Your task to perform on an android device: Empty the shopping cart on newegg.com. Search for apple airpods on newegg.com, select the first entry, add it to the cart, then select checkout. Image 0: 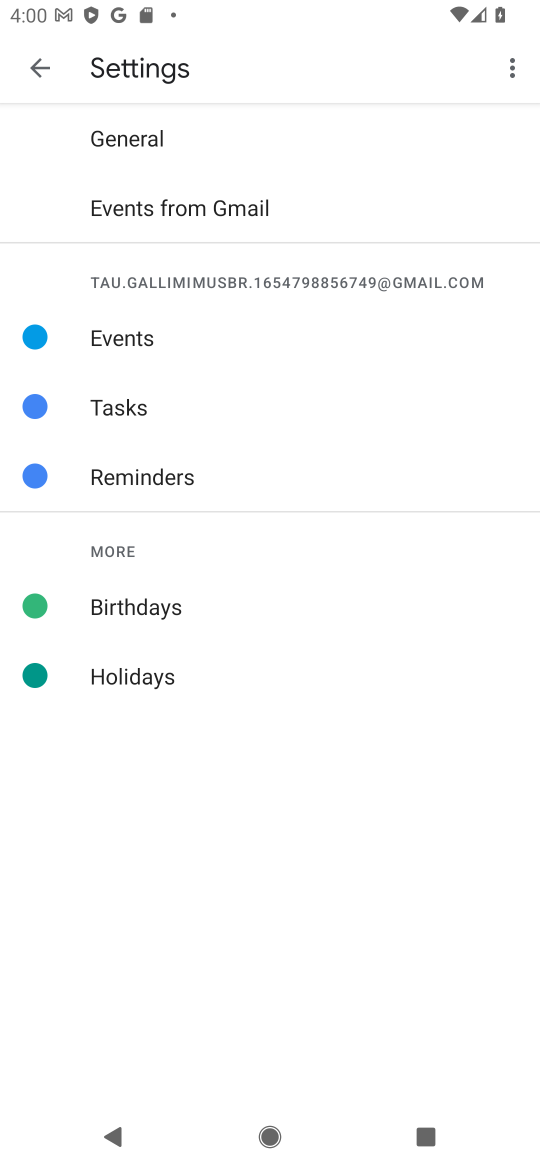
Step 0: press home button
Your task to perform on an android device: Empty the shopping cart on newegg.com. Search for apple airpods on newegg.com, select the first entry, add it to the cart, then select checkout. Image 1: 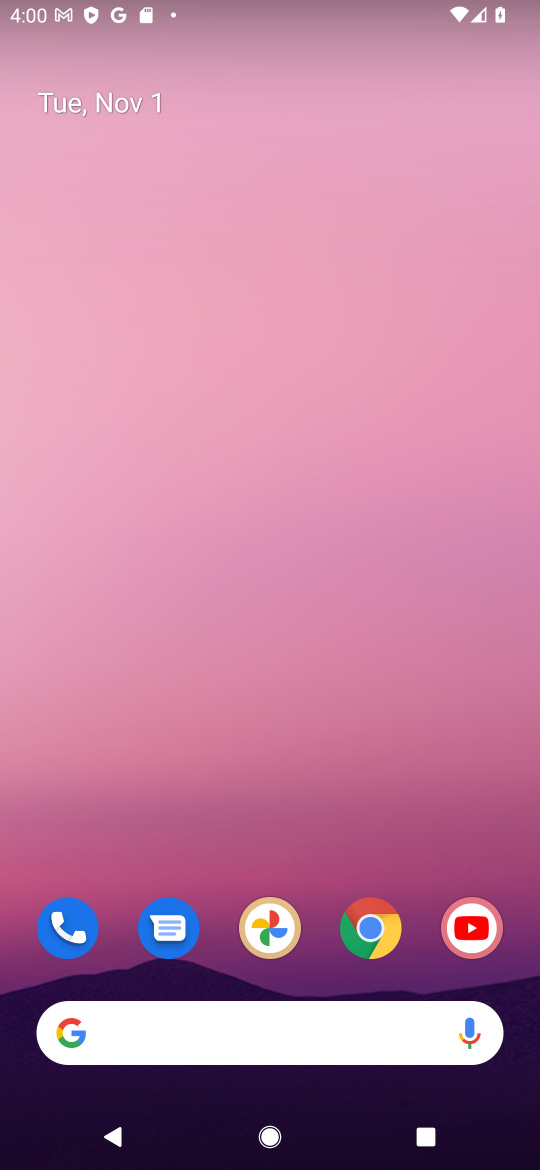
Step 1: click (360, 934)
Your task to perform on an android device: Empty the shopping cart on newegg.com. Search for apple airpods on newegg.com, select the first entry, add it to the cart, then select checkout. Image 2: 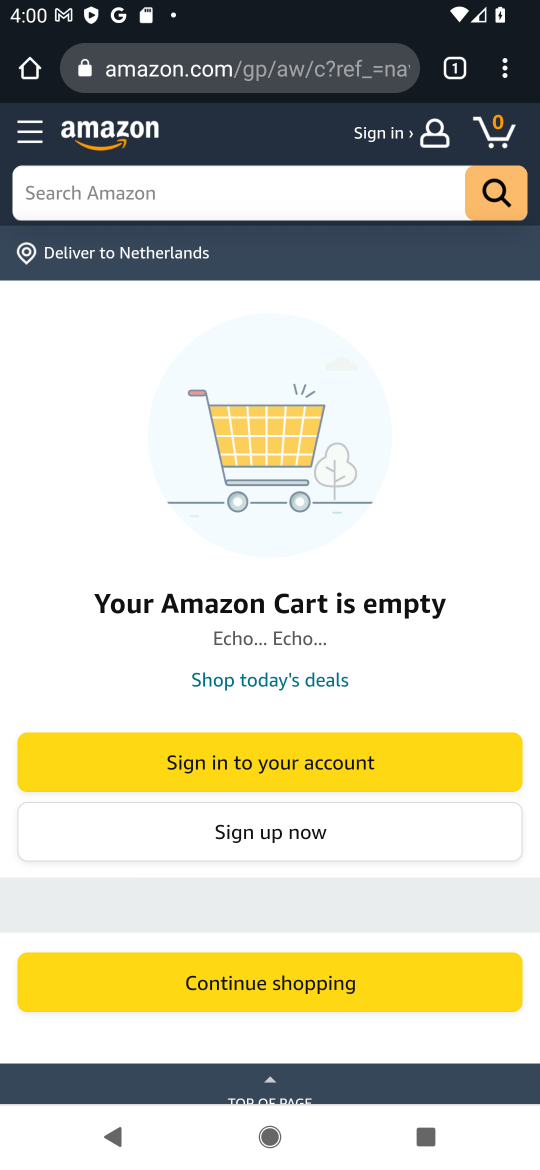
Step 2: click (259, 67)
Your task to perform on an android device: Empty the shopping cart on newegg.com. Search for apple airpods on newegg.com, select the first entry, add it to the cart, then select checkout. Image 3: 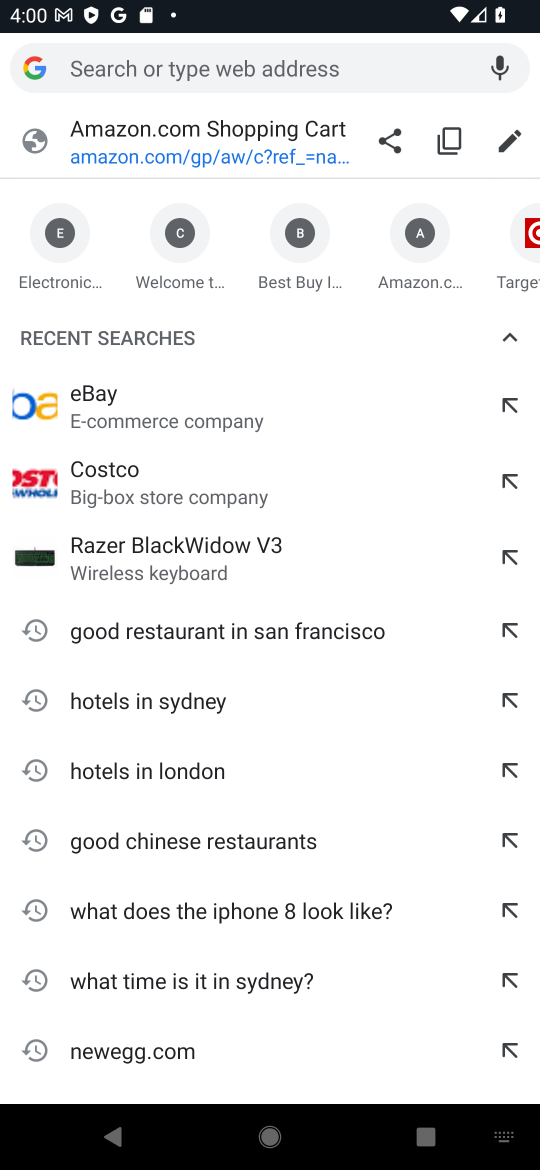
Step 3: type "newegg.com"
Your task to perform on an android device: Empty the shopping cart on newegg.com. Search for apple airpods on newegg.com, select the first entry, add it to the cart, then select checkout. Image 4: 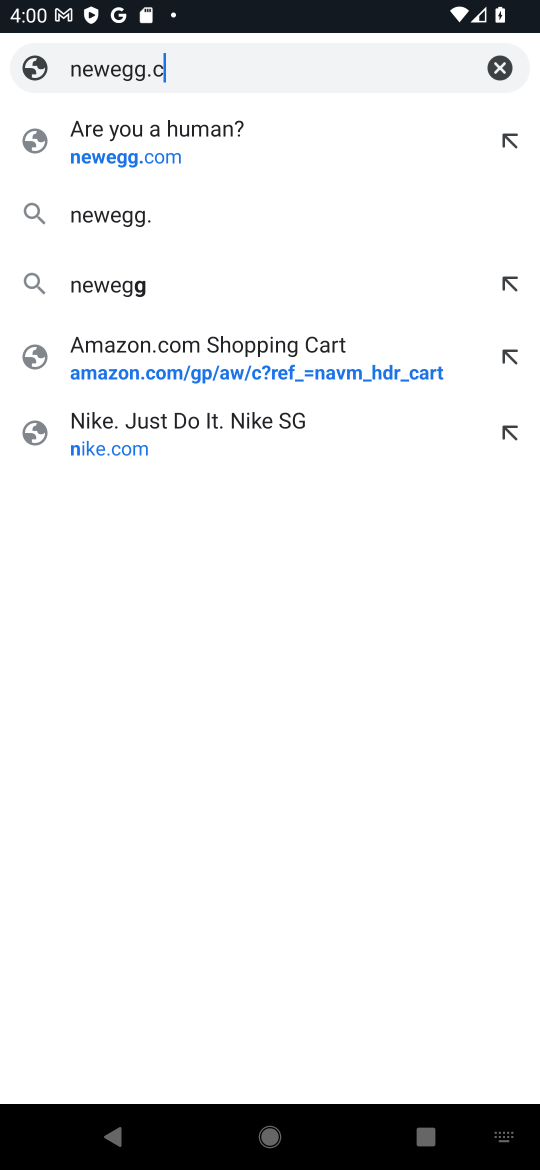
Step 4: type ""
Your task to perform on an android device: Empty the shopping cart on newegg.com. Search for apple airpods on newegg.com, select the first entry, add it to the cart, then select checkout. Image 5: 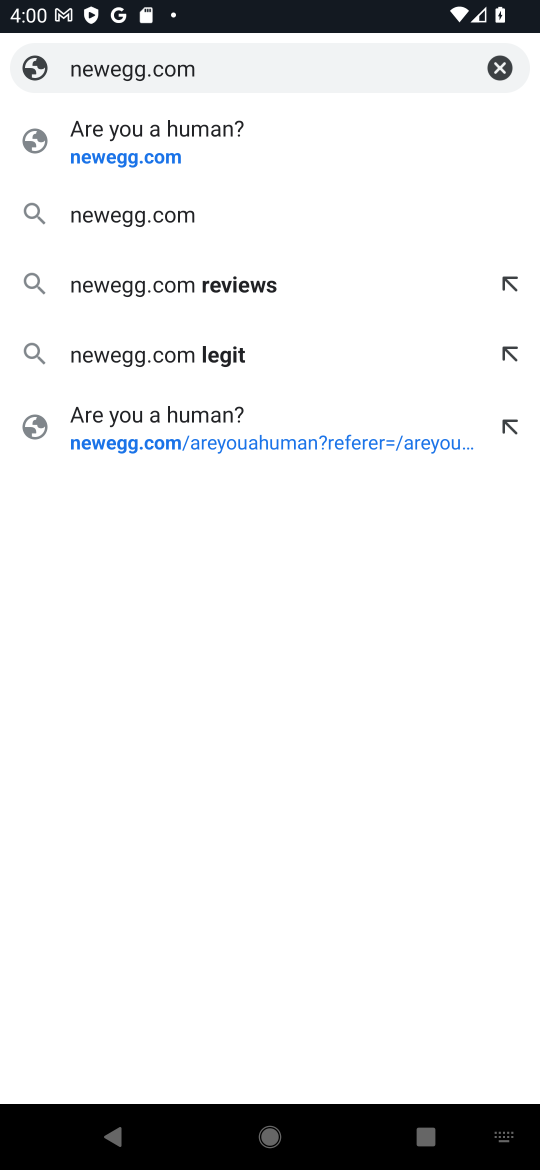
Step 5: press enter
Your task to perform on an android device: Empty the shopping cart on newegg.com. Search for apple airpods on newegg.com, select the first entry, add it to the cart, then select checkout. Image 6: 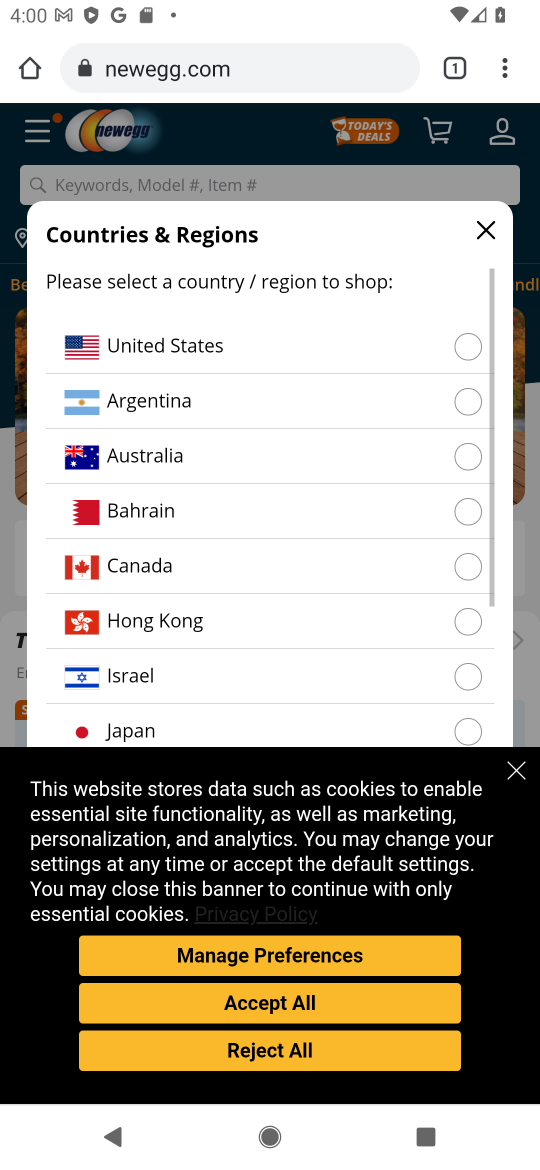
Step 6: click (304, 1003)
Your task to perform on an android device: Empty the shopping cart on newegg.com. Search for apple airpods on newegg.com, select the first entry, add it to the cart, then select checkout. Image 7: 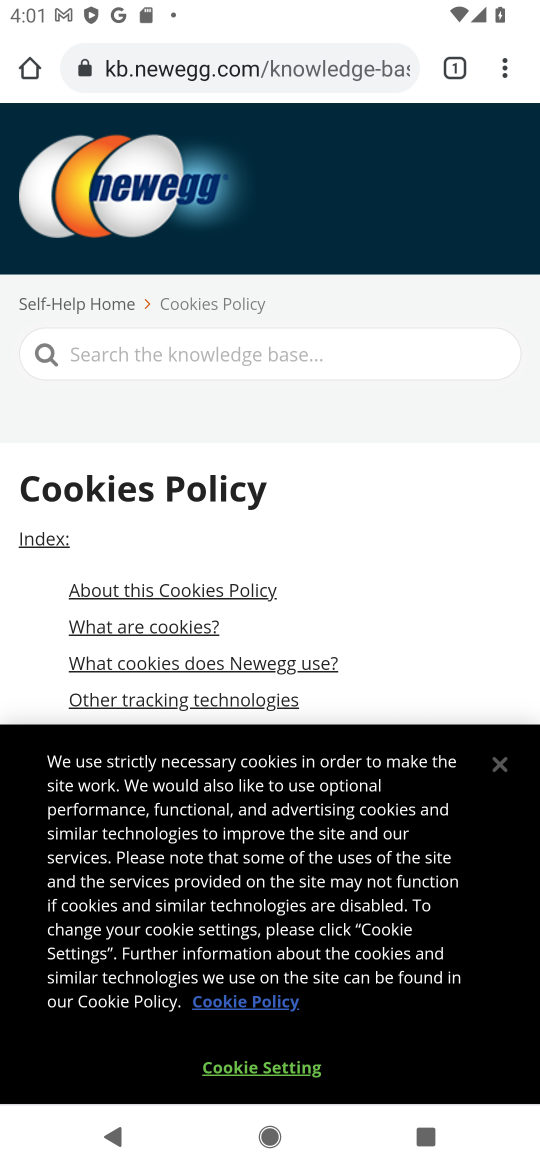
Step 7: click (509, 766)
Your task to perform on an android device: Empty the shopping cart on newegg.com. Search for apple airpods on newegg.com, select the first entry, add it to the cart, then select checkout. Image 8: 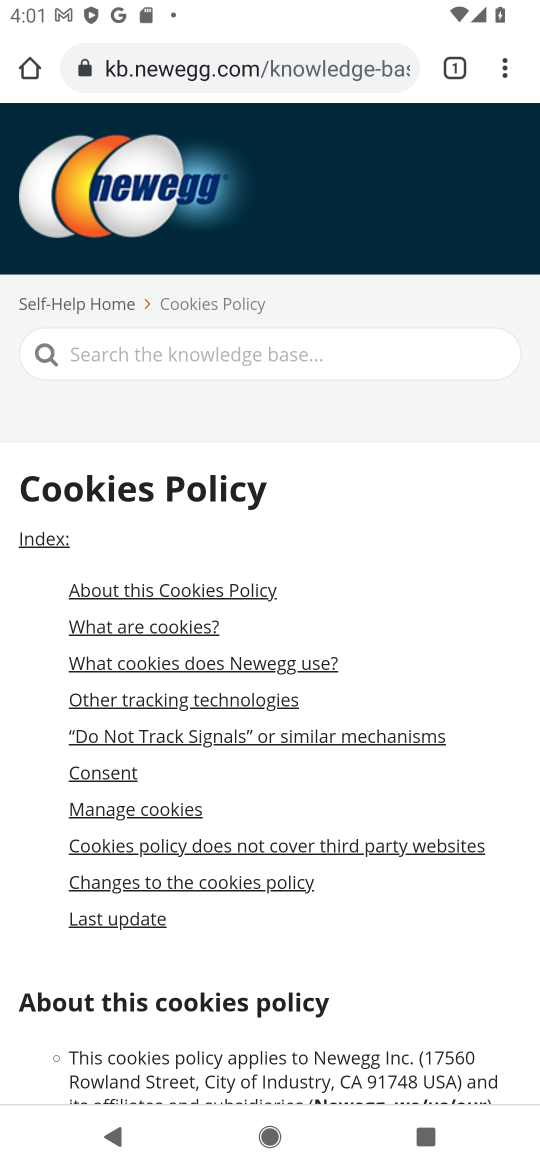
Step 8: drag from (316, 729) to (380, 962)
Your task to perform on an android device: Empty the shopping cart on newegg.com. Search for apple airpods on newegg.com, select the first entry, add it to the cart, then select checkout. Image 9: 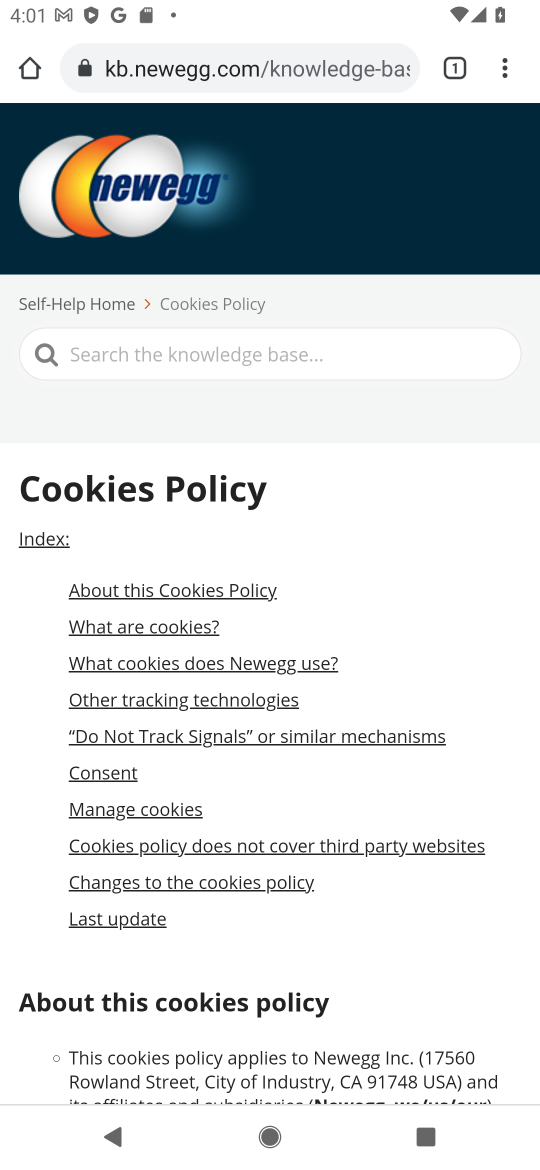
Step 9: drag from (365, 356) to (376, 763)
Your task to perform on an android device: Empty the shopping cart on newegg.com. Search for apple airpods on newegg.com, select the first entry, add it to the cart, then select checkout. Image 10: 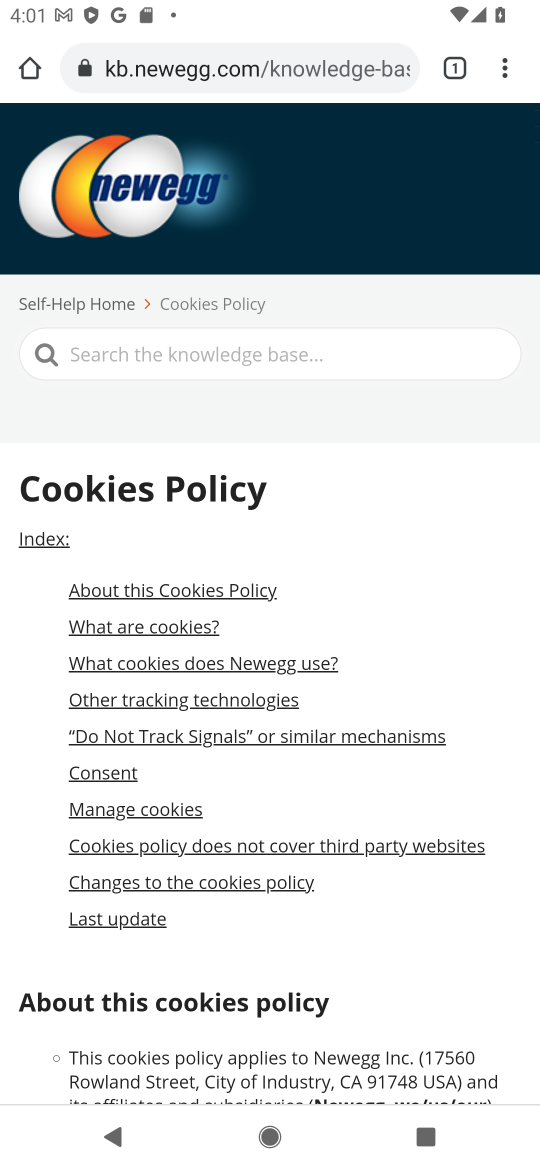
Step 10: click (114, 200)
Your task to perform on an android device: Empty the shopping cart on newegg.com. Search for apple airpods on newegg.com, select the first entry, add it to the cart, then select checkout. Image 11: 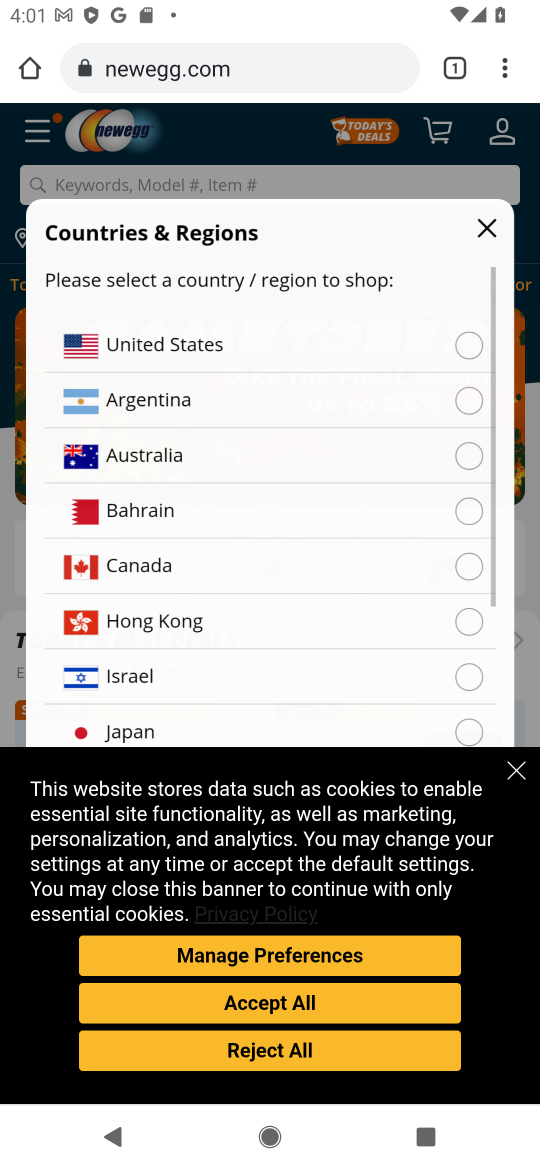
Step 11: click (435, 143)
Your task to perform on an android device: Empty the shopping cart on newegg.com. Search for apple airpods on newegg.com, select the first entry, add it to the cart, then select checkout. Image 12: 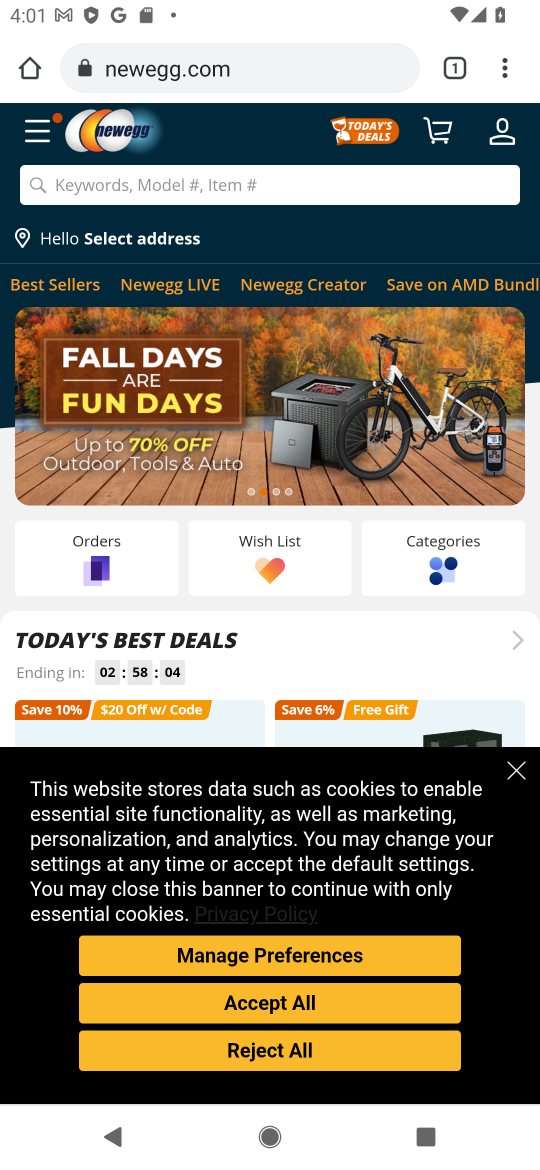
Step 12: click (294, 1002)
Your task to perform on an android device: Empty the shopping cart on newegg.com. Search for apple airpods on newegg.com, select the first entry, add it to the cart, then select checkout. Image 13: 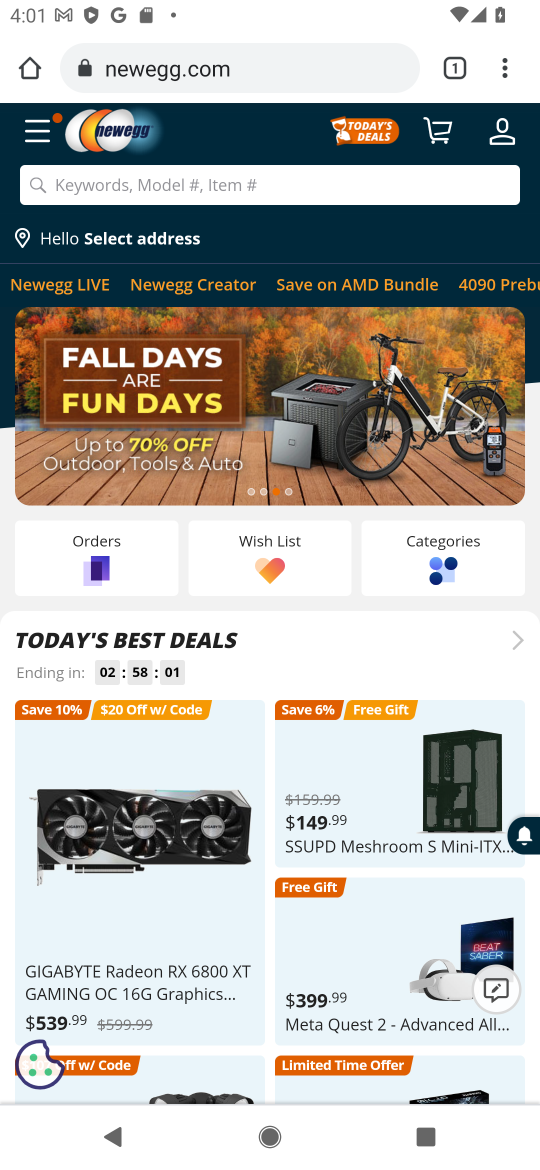
Step 13: click (435, 138)
Your task to perform on an android device: Empty the shopping cart on newegg.com. Search for apple airpods on newegg.com, select the first entry, add it to the cart, then select checkout. Image 14: 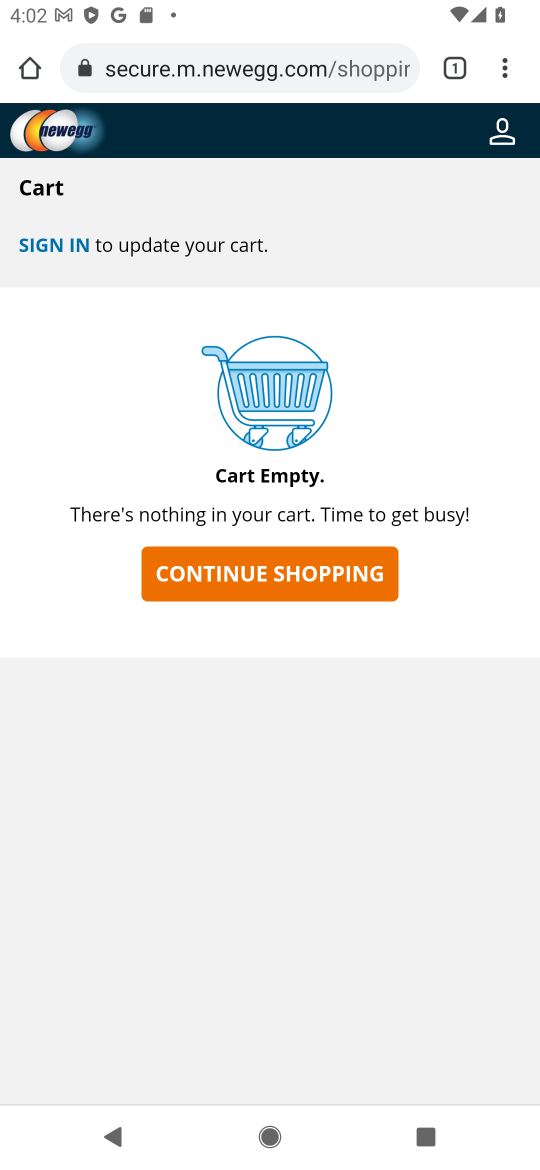
Step 14: click (313, 573)
Your task to perform on an android device: Empty the shopping cart on newegg.com. Search for apple airpods on newegg.com, select the first entry, add it to the cart, then select checkout. Image 15: 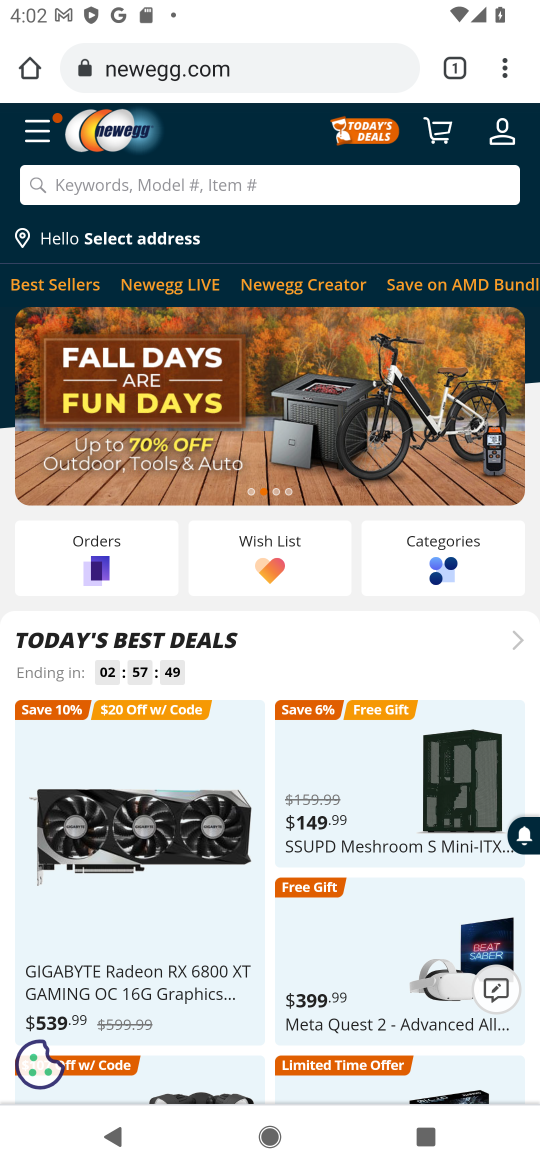
Step 15: click (140, 185)
Your task to perform on an android device: Empty the shopping cart on newegg.com. Search for apple airpods on newegg.com, select the first entry, add it to the cart, then select checkout. Image 16: 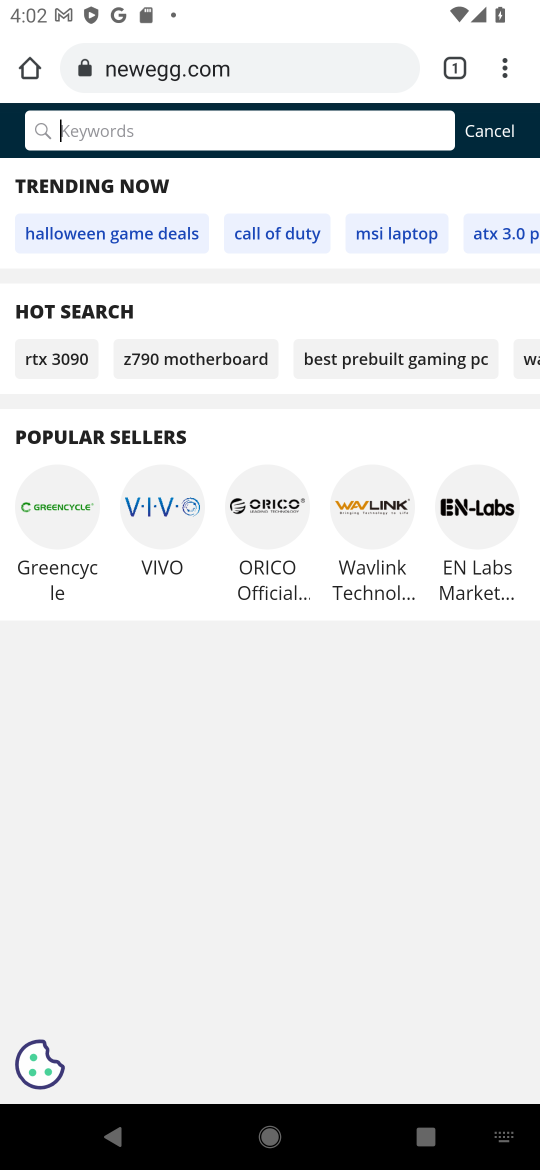
Step 16: type "apple airpods"
Your task to perform on an android device: Empty the shopping cart on newegg.com. Search for apple airpods on newegg.com, select the first entry, add it to the cart, then select checkout. Image 17: 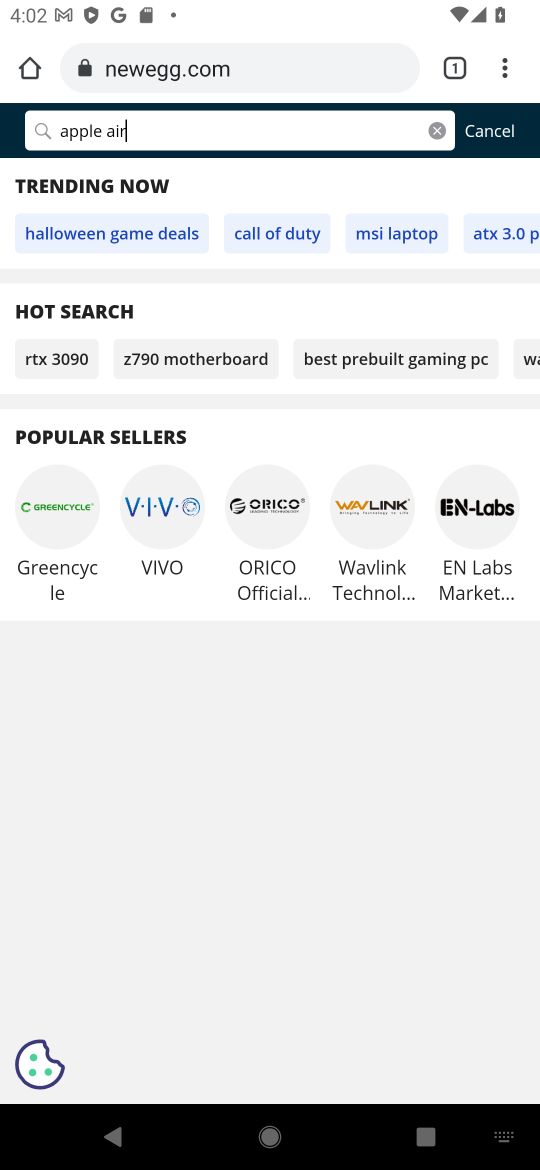
Step 17: type ""
Your task to perform on an android device: Empty the shopping cart on newegg.com. Search for apple airpods on newegg.com, select the first entry, add it to the cart, then select checkout. Image 18: 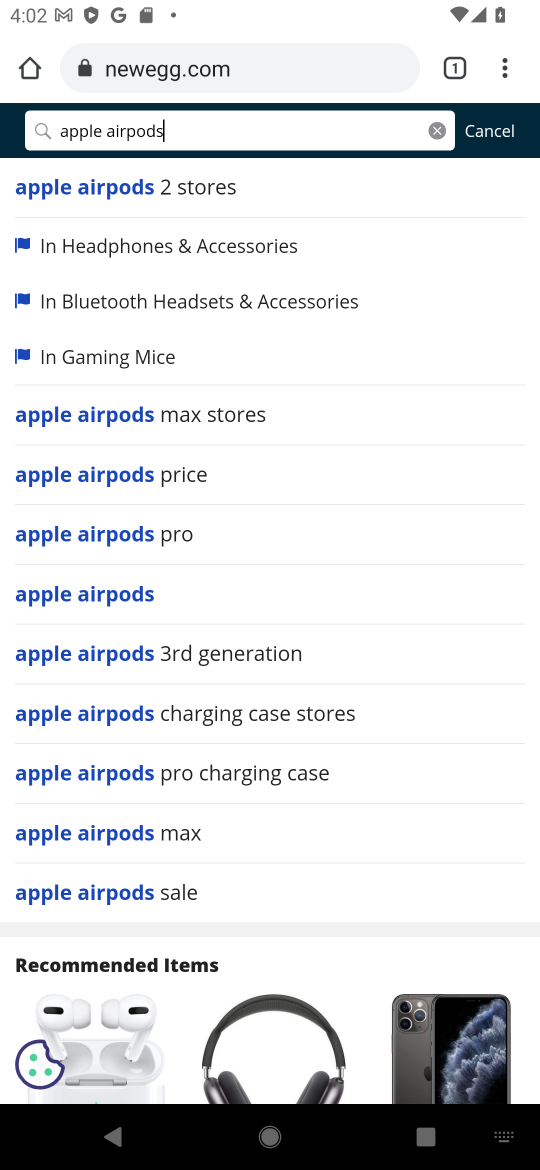
Step 18: press enter
Your task to perform on an android device: Empty the shopping cart on newegg.com. Search for apple airpods on newegg.com, select the first entry, add it to the cart, then select checkout. Image 19: 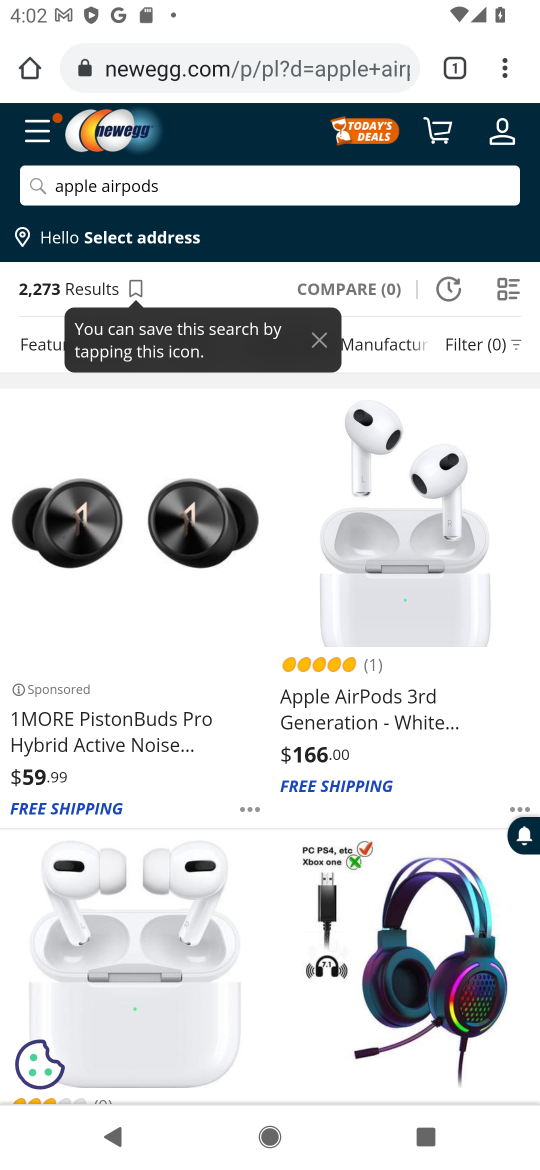
Step 19: press enter
Your task to perform on an android device: Empty the shopping cart on newegg.com. Search for apple airpods on newegg.com, select the first entry, add it to the cart, then select checkout. Image 20: 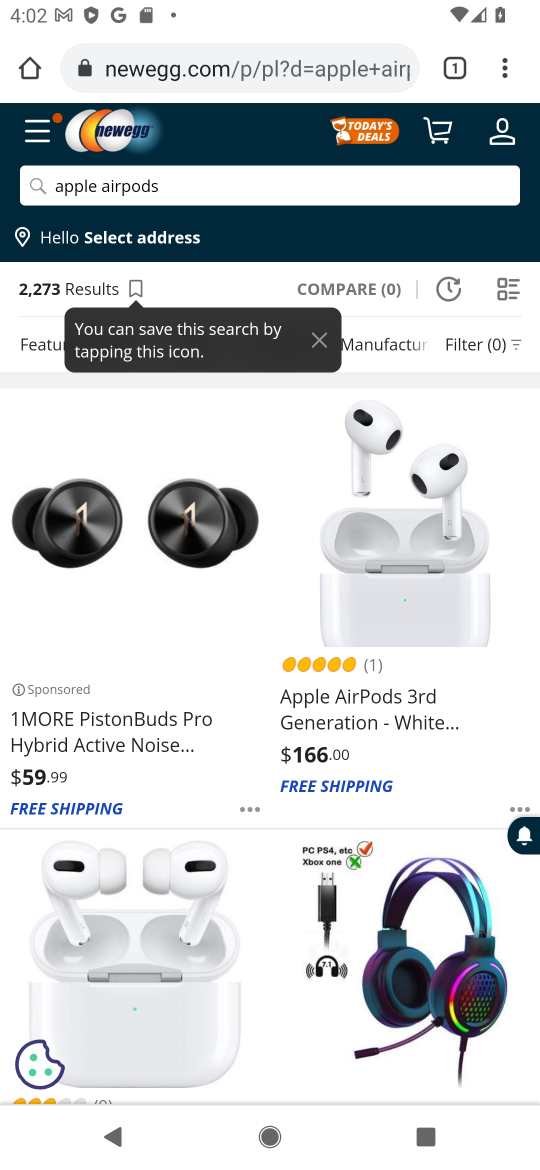
Step 20: click (158, 590)
Your task to perform on an android device: Empty the shopping cart on newegg.com. Search for apple airpods on newegg.com, select the first entry, add it to the cart, then select checkout. Image 21: 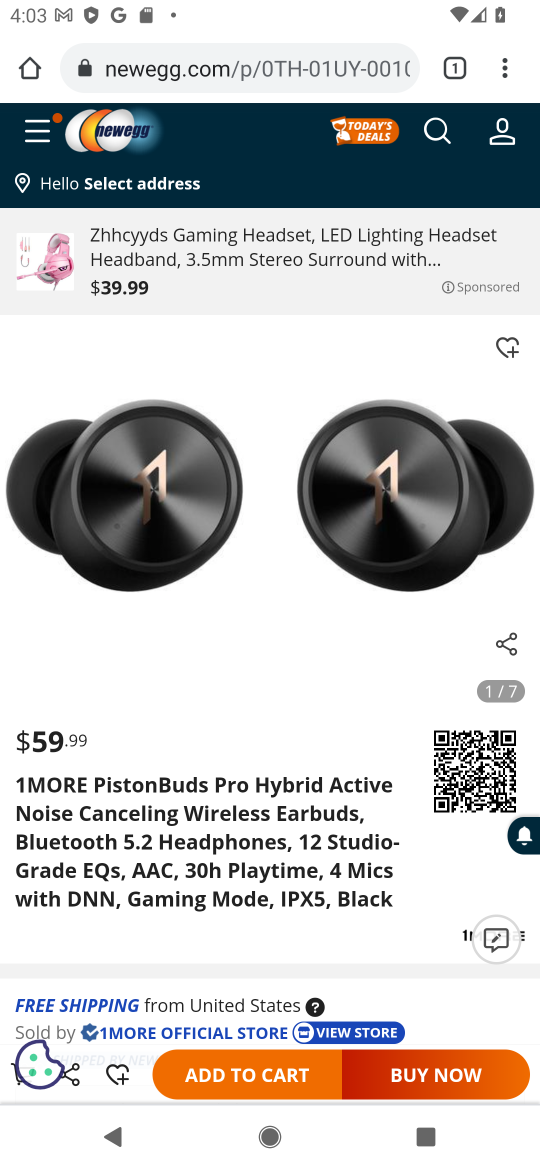
Step 21: click (291, 1074)
Your task to perform on an android device: Empty the shopping cart on newegg.com. Search for apple airpods on newegg.com, select the first entry, add it to the cart, then select checkout. Image 22: 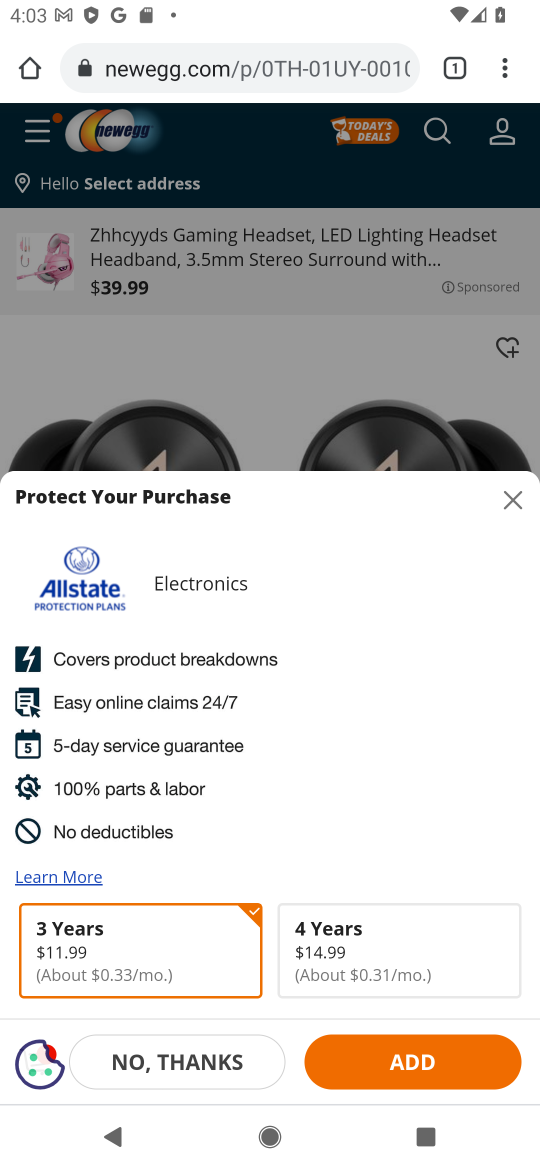
Step 22: click (190, 1062)
Your task to perform on an android device: Empty the shopping cart on newegg.com. Search for apple airpods on newegg.com, select the first entry, add it to the cart, then select checkout. Image 23: 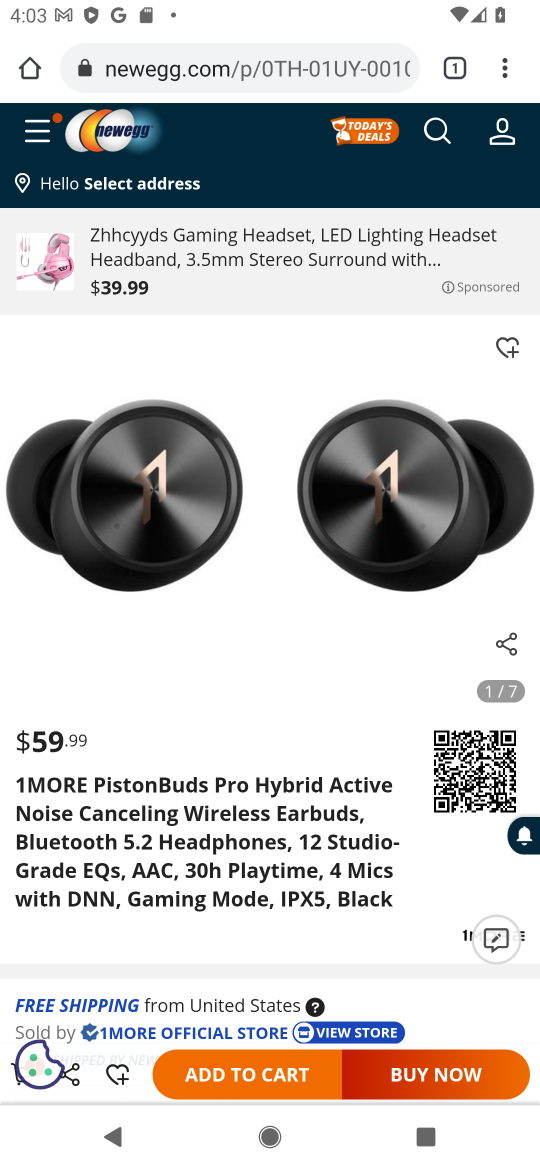
Step 23: click (405, 1075)
Your task to perform on an android device: Empty the shopping cart on newegg.com. Search for apple airpods on newegg.com, select the first entry, add it to the cart, then select checkout. Image 24: 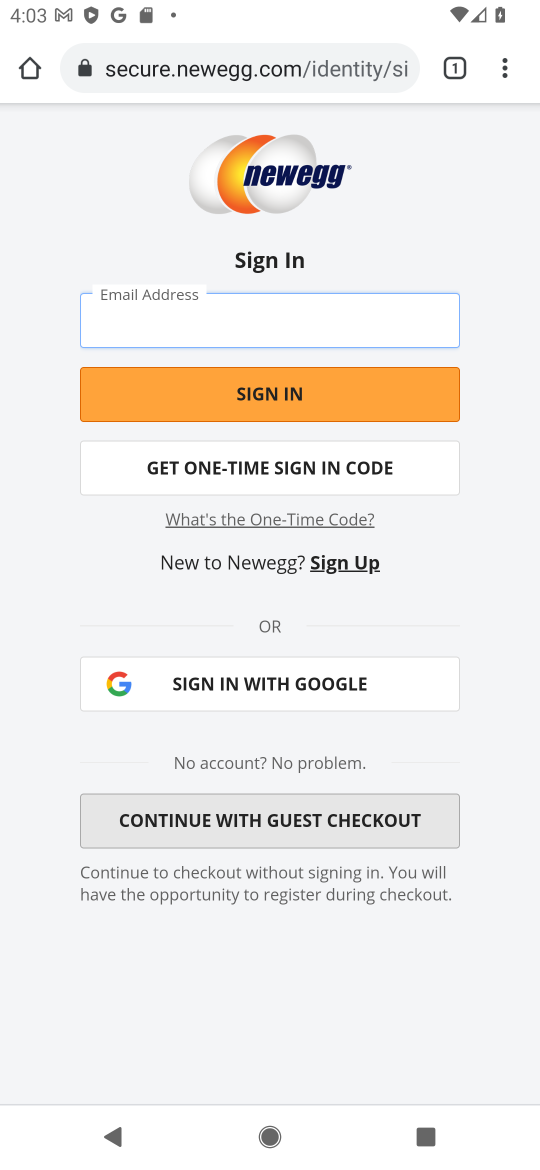
Step 24: click (326, 827)
Your task to perform on an android device: Empty the shopping cart on newegg.com. Search for apple airpods on newegg.com, select the first entry, add it to the cart, then select checkout. Image 25: 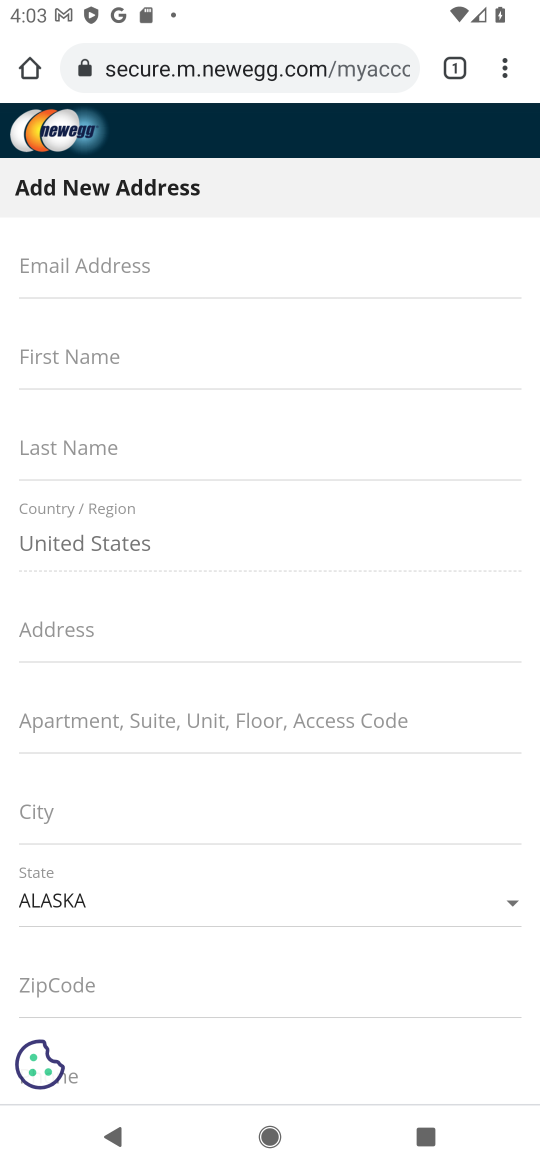
Step 25: task complete